Your task to perform on an android device: find which apps use the phone's location Image 0: 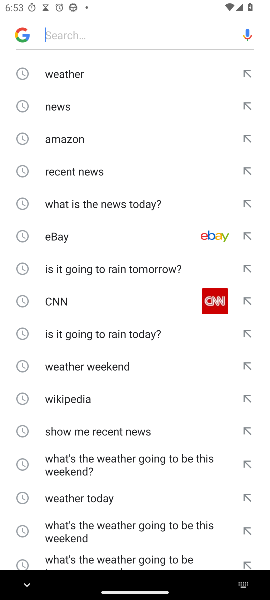
Step 0: press home button
Your task to perform on an android device: find which apps use the phone's location Image 1: 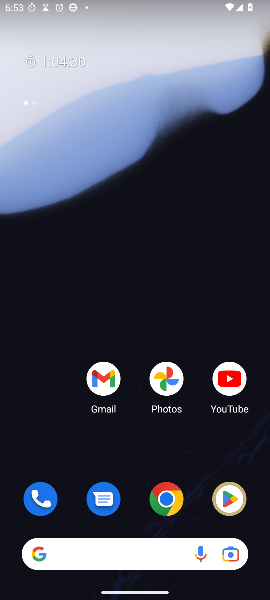
Step 1: drag from (122, 519) to (189, 95)
Your task to perform on an android device: find which apps use the phone's location Image 2: 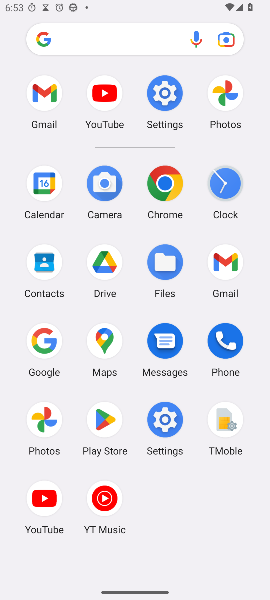
Step 2: click (167, 92)
Your task to perform on an android device: find which apps use the phone's location Image 3: 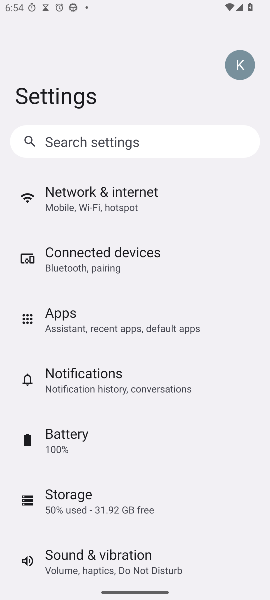
Step 3: click (103, 333)
Your task to perform on an android device: find which apps use the phone's location Image 4: 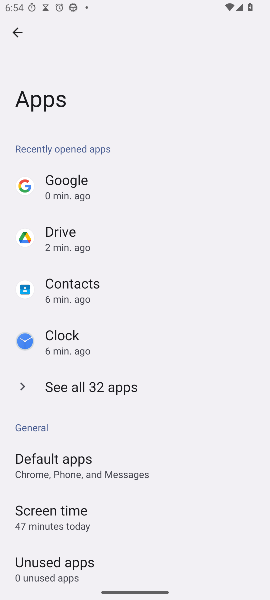
Step 4: task complete